Your task to perform on an android device: turn off location history Image 0: 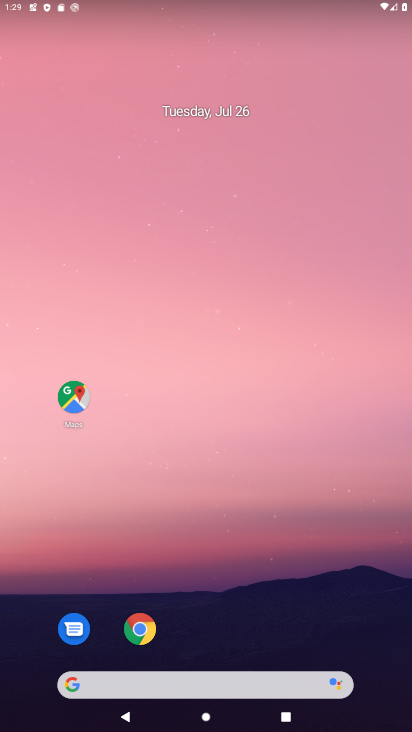
Step 0: drag from (227, 565) to (231, 135)
Your task to perform on an android device: turn off location history Image 1: 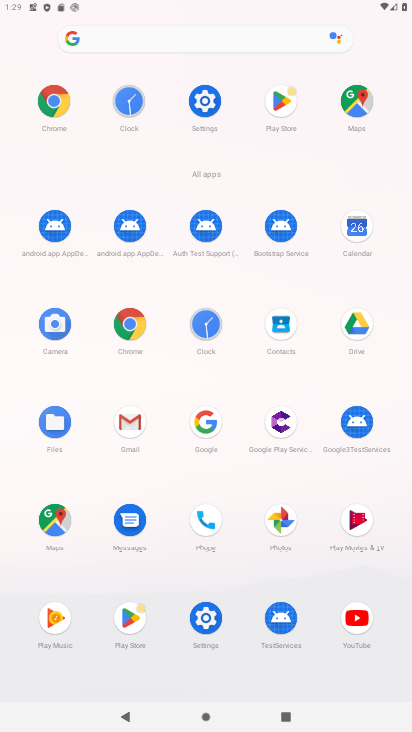
Step 1: click (208, 624)
Your task to perform on an android device: turn off location history Image 2: 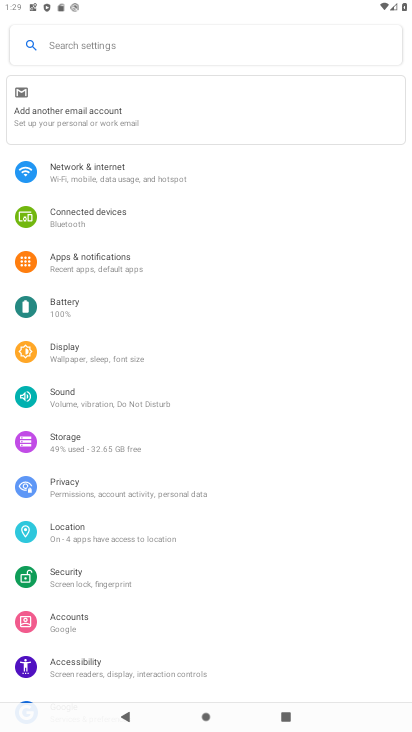
Step 2: click (91, 533)
Your task to perform on an android device: turn off location history Image 3: 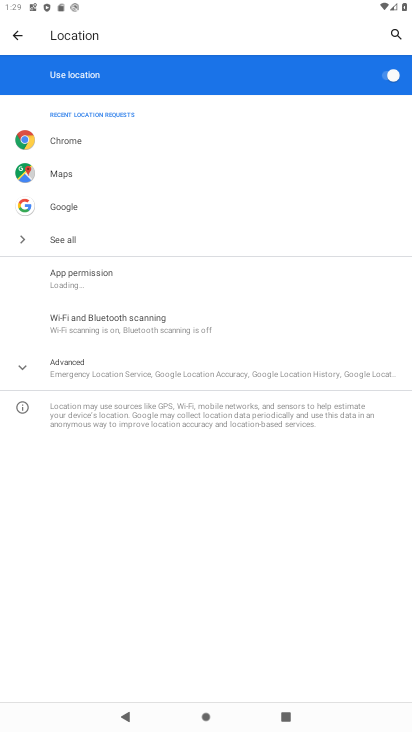
Step 3: task complete